Your task to perform on an android device: turn on notifications settings in the gmail app Image 0: 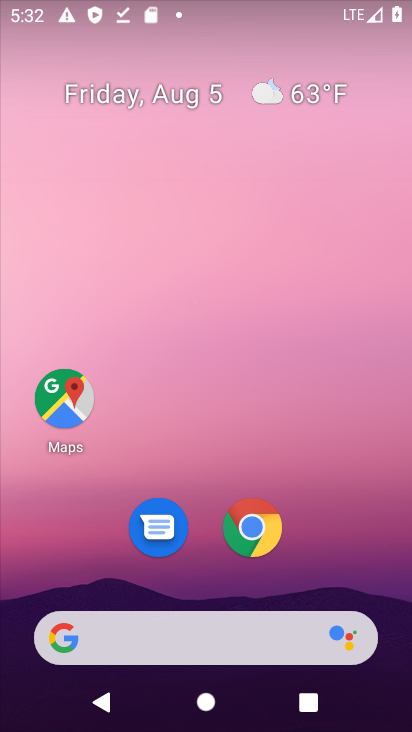
Step 0: drag from (205, 572) to (239, 166)
Your task to perform on an android device: turn on notifications settings in the gmail app Image 1: 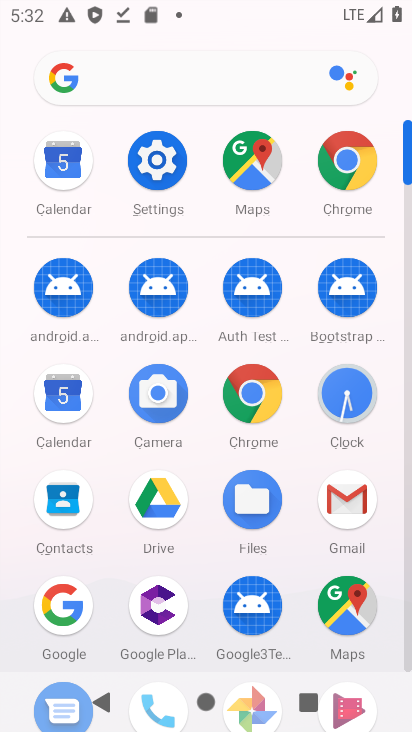
Step 1: click (332, 509)
Your task to perform on an android device: turn on notifications settings in the gmail app Image 2: 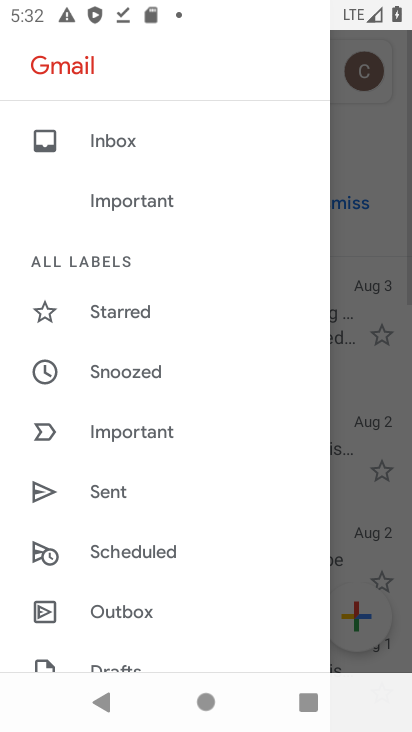
Step 2: drag from (130, 649) to (180, 330)
Your task to perform on an android device: turn on notifications settings in the gmail app Image 3: 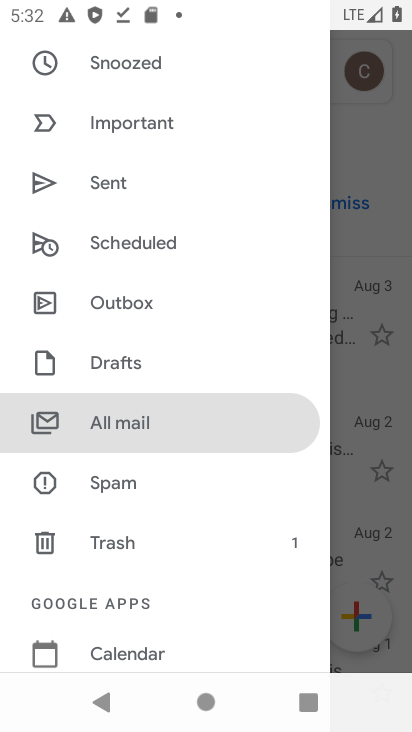
Step 3: click (380, 147)
Your task to perform on an android device: turn on notifications settings in the gmail app Image 4: 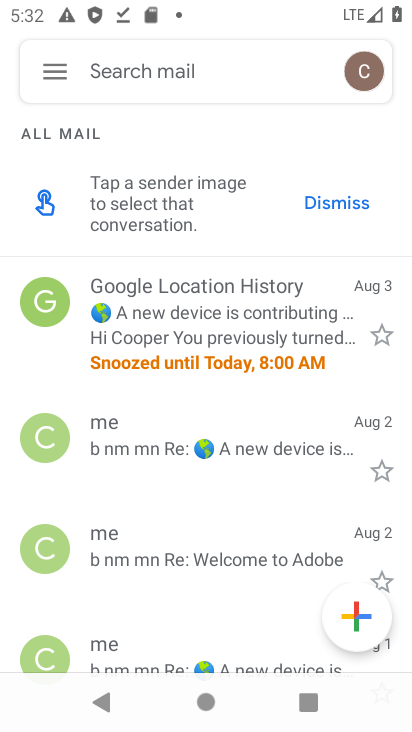
Step 4: click (69, 64)
Your task to perform on an android device: turn on notifications settings in the gmail app Image 5: 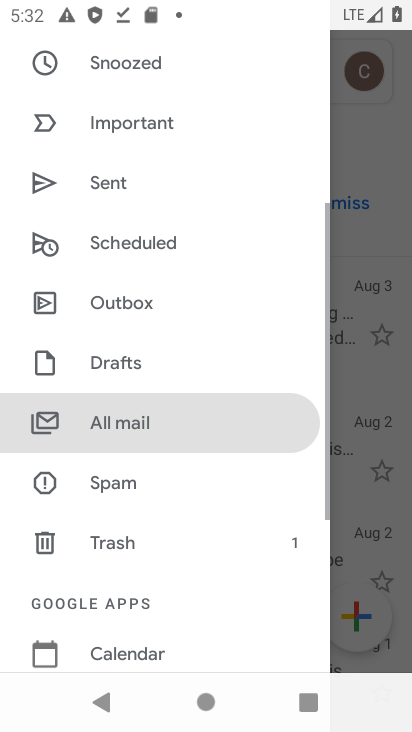
Step 5: drag from (59, 567) to (137, 121)
Your task to perform on an android device: turn on notifications settings in the gmail app Image 6: 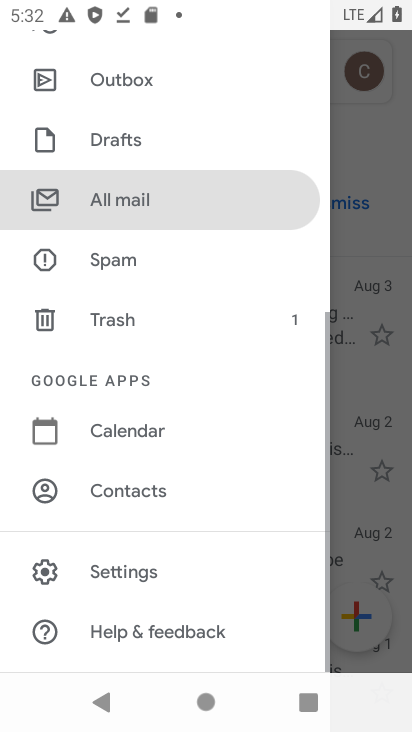
Step 6: click (146, 551)
Your task to perform on an android device: turn on notifications settings in the gmail app Image 7: 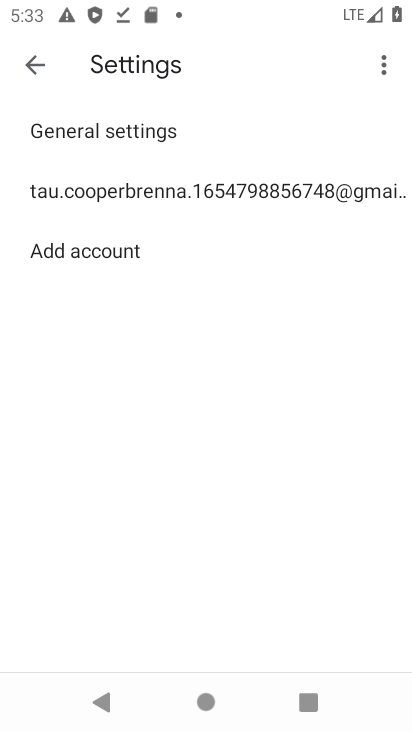
Step 7: click (238, 188)
Your task to perform on an android device: turn on notifications settings in the gmail app Image 8: 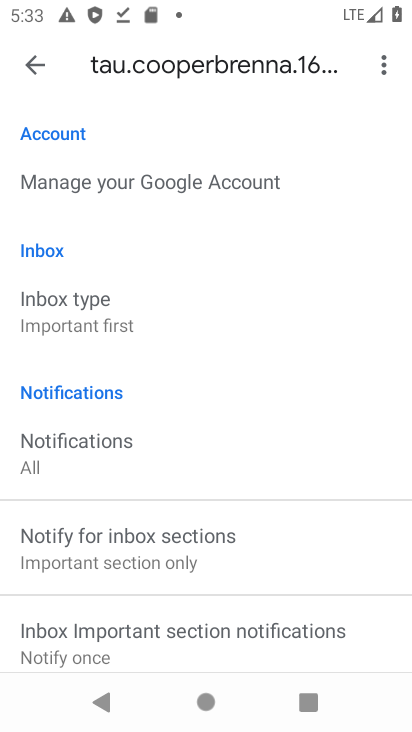
Step 8: drag from (147, 391) to (186, 251)
Your task to perform on an android device: turn on notifications settings in the gmail app Image 9: 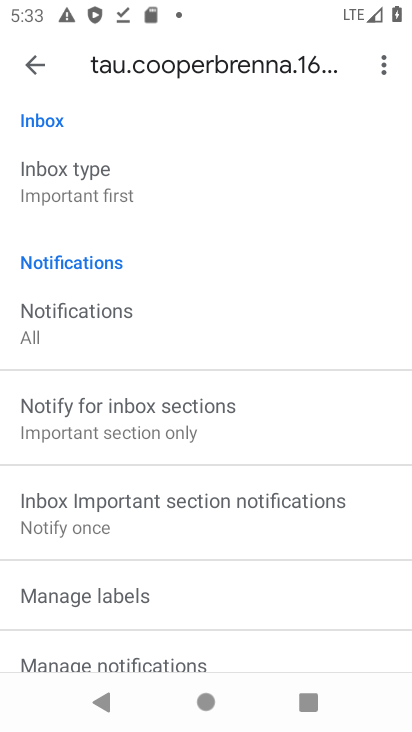
Step 9: drag from (198, 620) to (240, 340)
Your task to perform on an android device: turn on notifications settings in the gmail app Image 10: 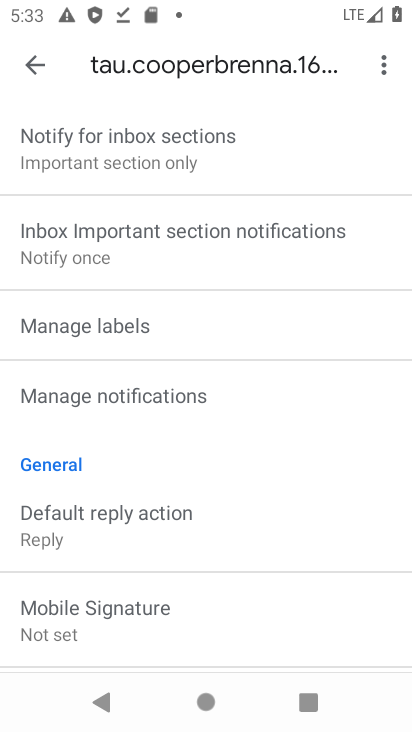
Step 10: click (218, 378)
Your task to perform on an android device: turn on notifications settings in the gmail app Image 11: 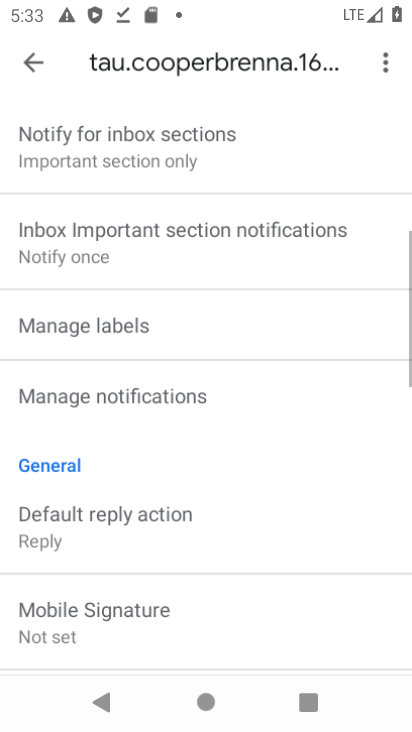
Step 11: drag from (204, 582) to (260, 300)
Your task to perform on an android device: turn on notifications settings in the gmail app Image 12: 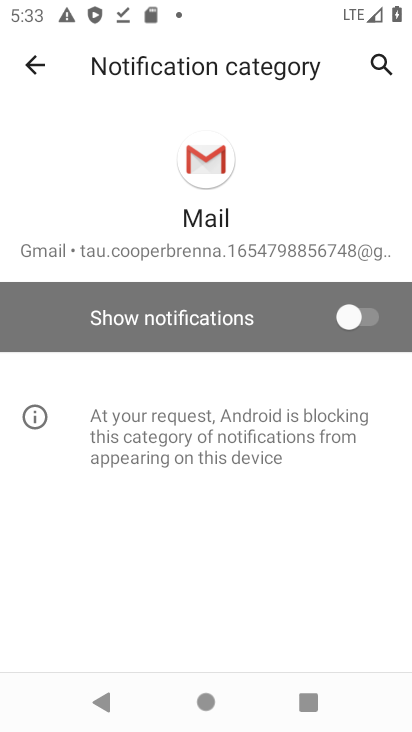
Step 12: drag from (229, 508) to (229, 315)
Your task to perform on an android device: turn on notifications settings in the gmail app Image 13: 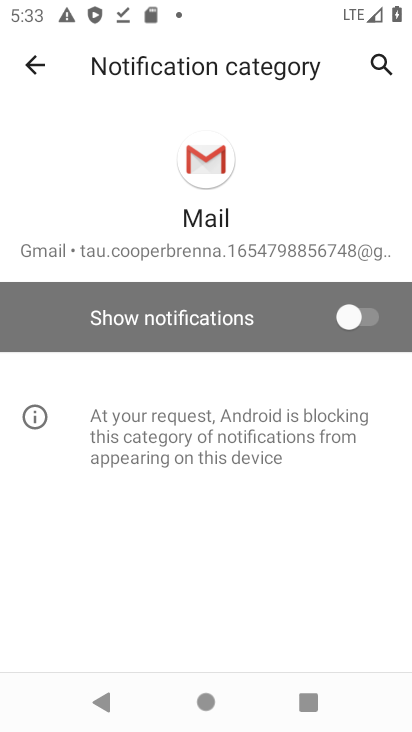
Step 13: click (331, 330)
Your task to perform on an android device: turn on notifications settings in the gmail app Image 14: 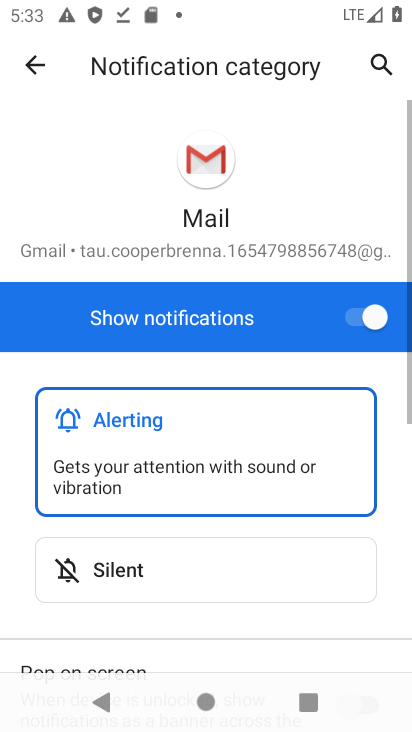
Step 14: task complete